Your task to perform on an android device: open chrome and create a bookmark for the current page Image 0: 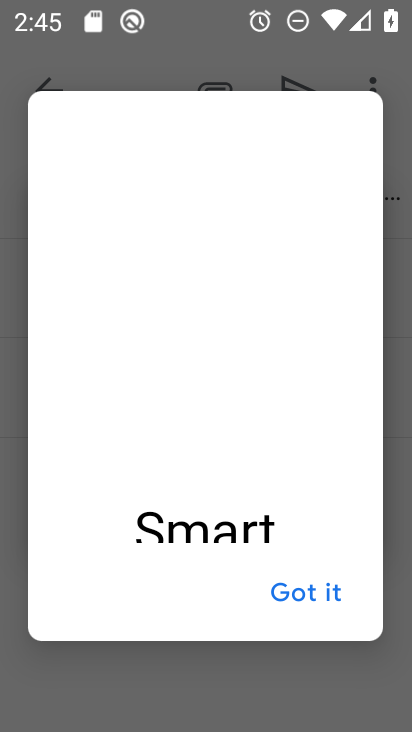
Step 0: press home button
Your task to perform on an android device: open chrome and create a bookmark for the current page Image 1: 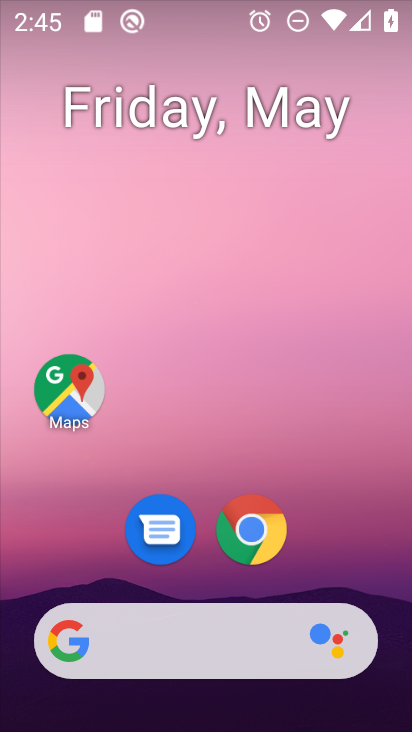
Step 1: click (242, 521)
Your task to perform on an android device: open chrome and create a bookmark for the current page Image 2: 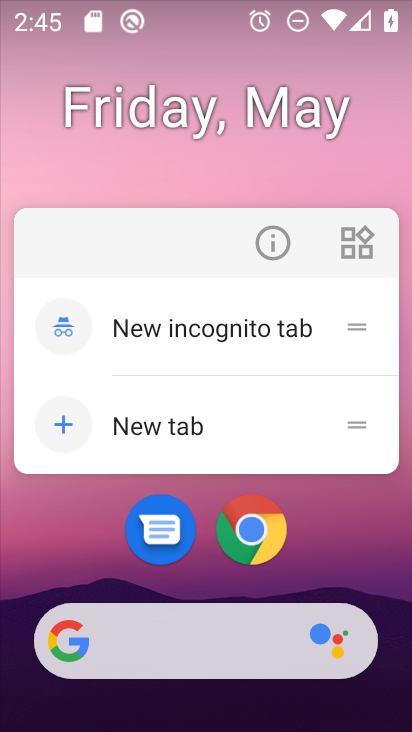
Step 2: click (256, 526)
Your task to perform on an android device: open chrome and create a bookmark for the current page Image 3: 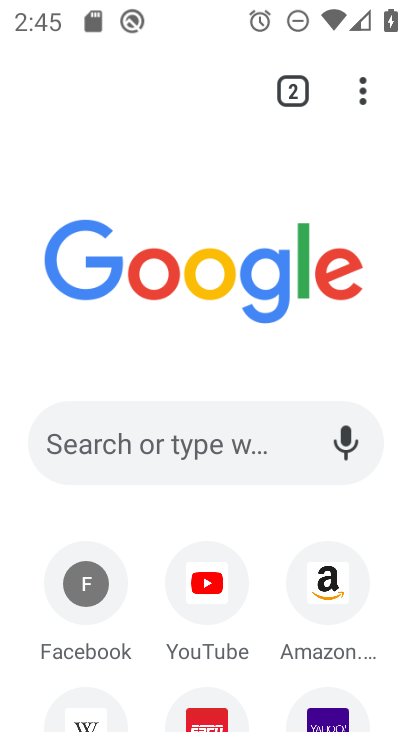
Step 3: click (362, 89)
Your task to perform on an android device: open chrome and create a bookmark for the current page Image 4: 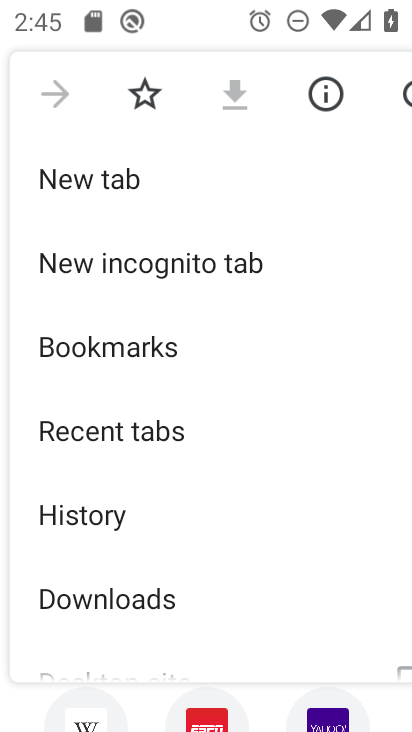
Step 4: drag from (282, 599) to (242, 183)
Your task to perform on an android device: open chrome and create a bookmark for the current page Image 5: 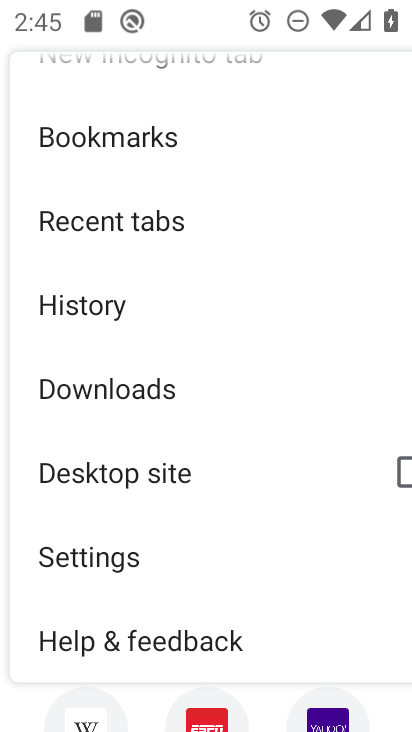
Step 5: drag from (254, 613) to (247, 360)
Your task to perform on an android device: open chrome and create a bookmark for the current page Image 6: 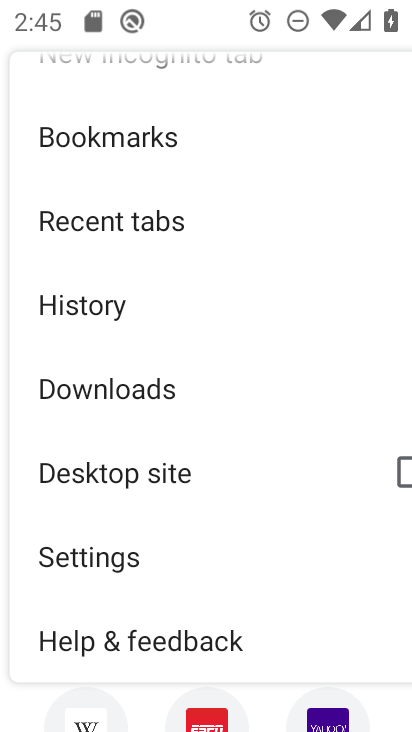
Step 6: drag from (250, 587) to (277, 303)
Your task to perform on an android device: open chrome and create a bookmark for the current page Image 7: 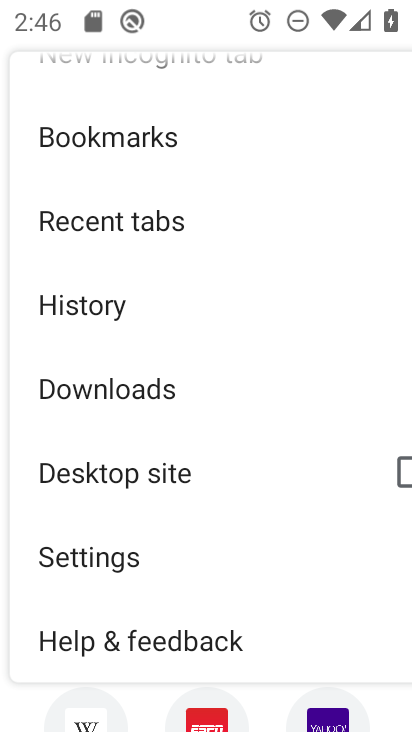
Step 7: click (74, 560)
Your task to perform on an android device: open chrome and create a bookmark for the current page Image 8: 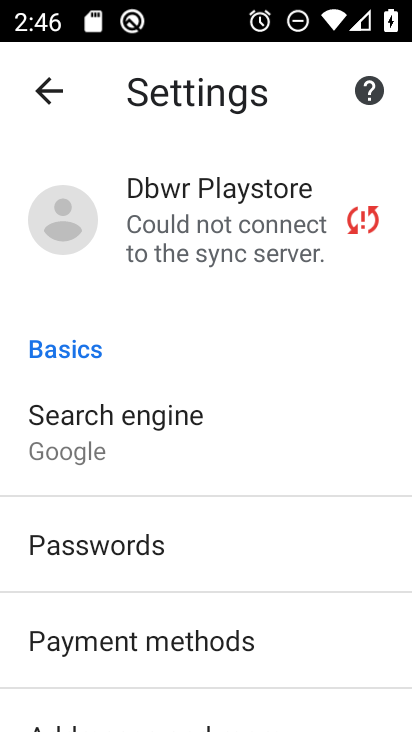
Step 8: drag from (315, 671) to (302, 305)
Your task to perform on an android device: open chrome and create a bookmark for the current page Image 9: 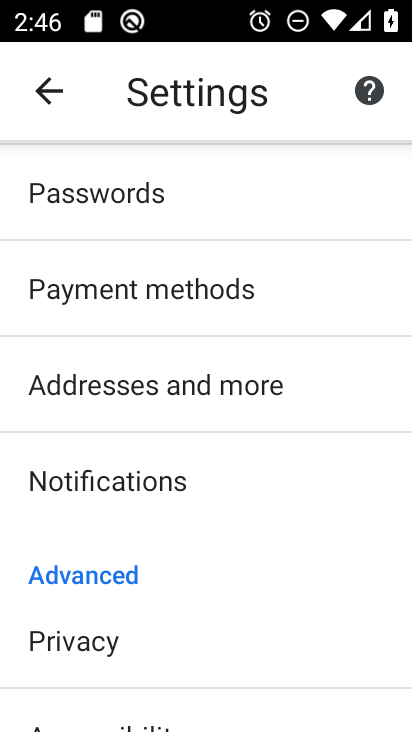
Step 9: drag from (215, 626) to (220, 399)
Your task to perform on an android device: open chrome and create a bookmark for the current page Image 10: 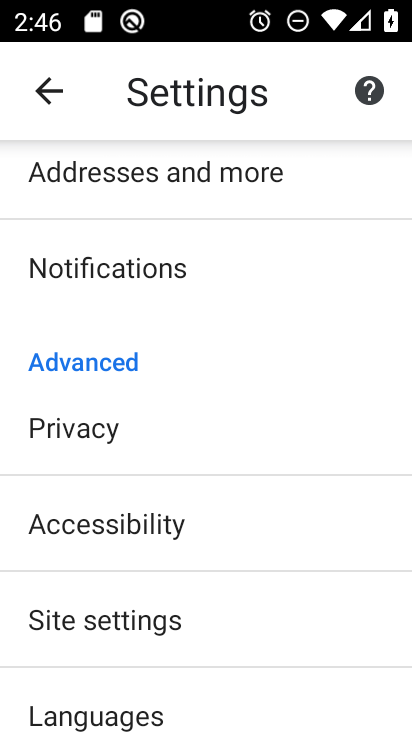
Step 10: drag from (247, 663) to (236, 462)
Your task to perform on an android device: open chrome and create a bookmark for the current page Image 11: 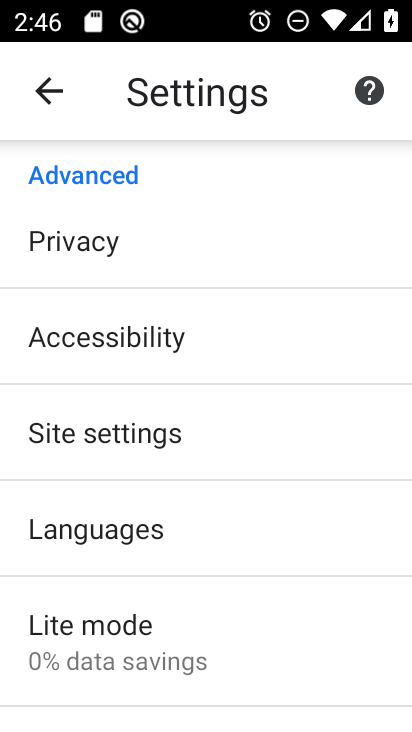
Step 11: click (39, 91)
Your task to perform on an android device: open chrome and create a bookmark for the current page Image 12: 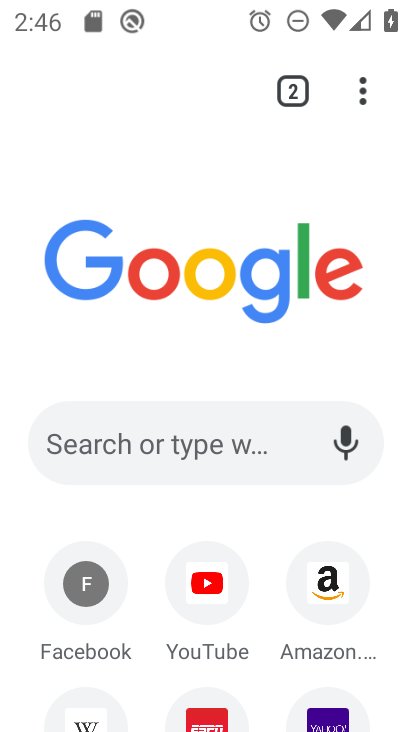
Step 12: click (362, 87)
Your task to perform on an android device: open chrome and create a bookmark for the current page Image 13: 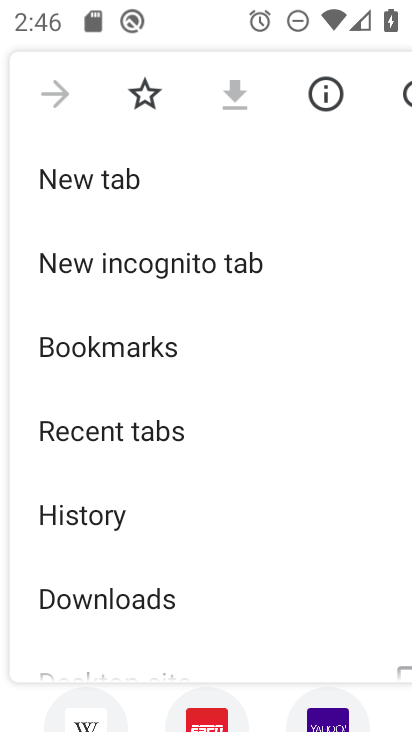
Step 13: click (110, 337)
Your task to perform on an android device: open chrome and create a bookmark for the current page Image 14: 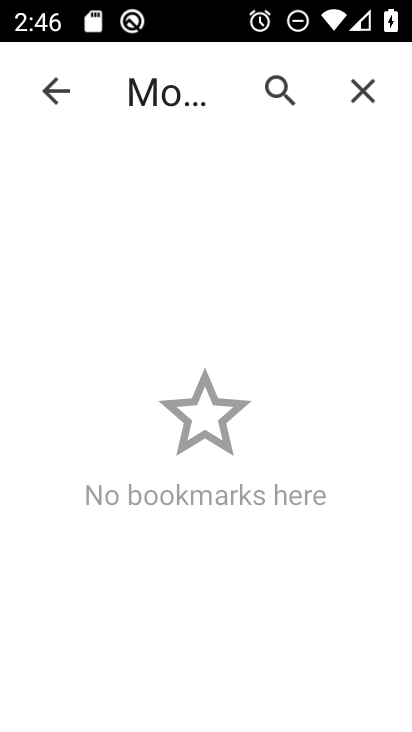
Step 14: task complete